Your task to perform on an android device: check data usage Image 0: 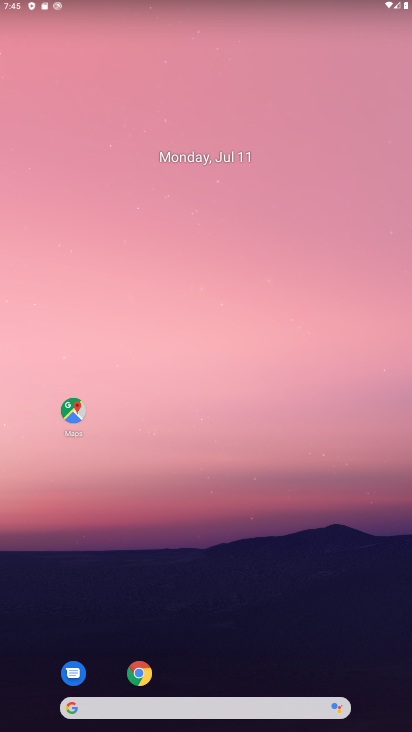
Step 0: drag from (215, 667) to (226, 157)
Your task to perform on an android device: check data usage Image 1: 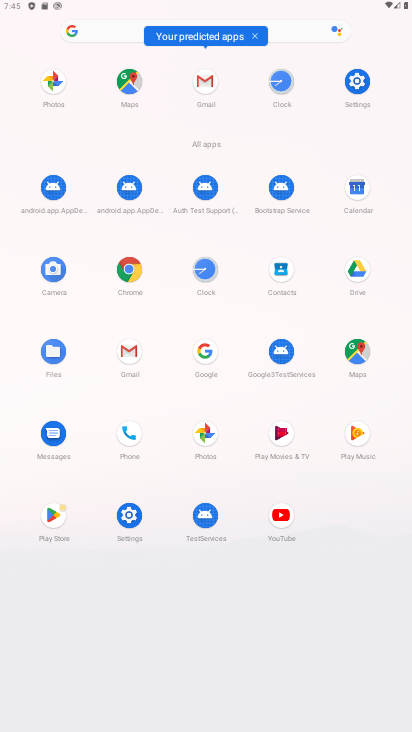
Step 1: click (354, 79)
Your task to perform on an android device: check data usage Image 2: 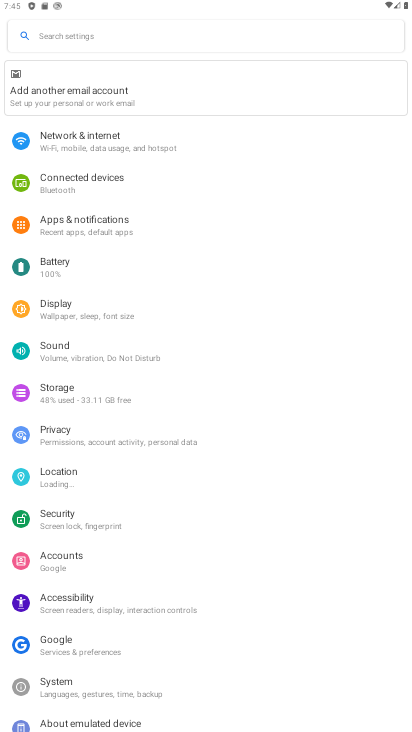
Step 2: click (135, 135)
Your task to perform on an android device: check data usage Image 3: 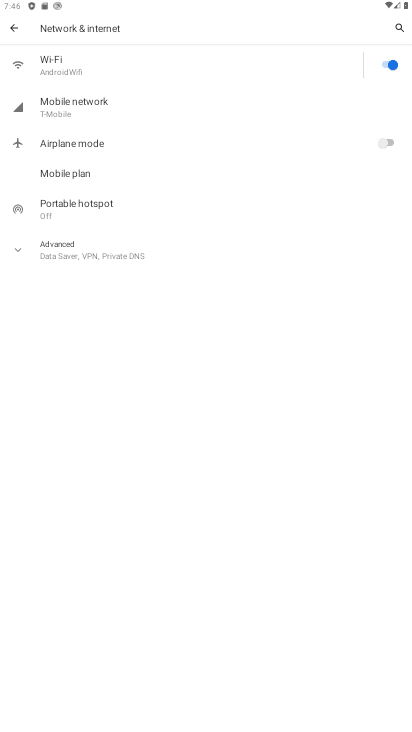
Step 3: click (93, 107)
Your task to perform on an android device: check data usage Image 4: 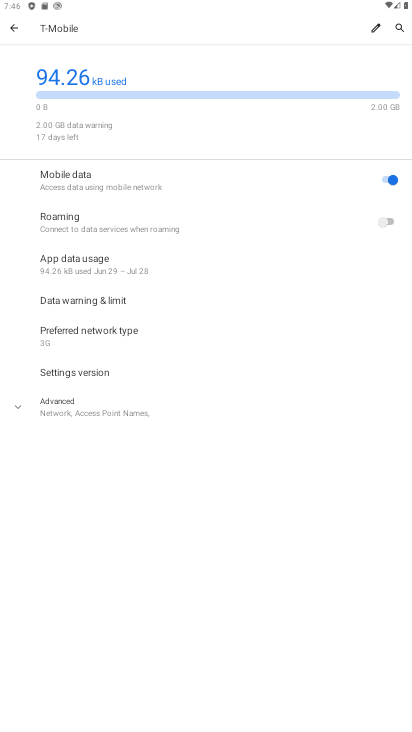
Step 4: click (116, 259)
Your task to perform on an android device: check data usage Image 5: 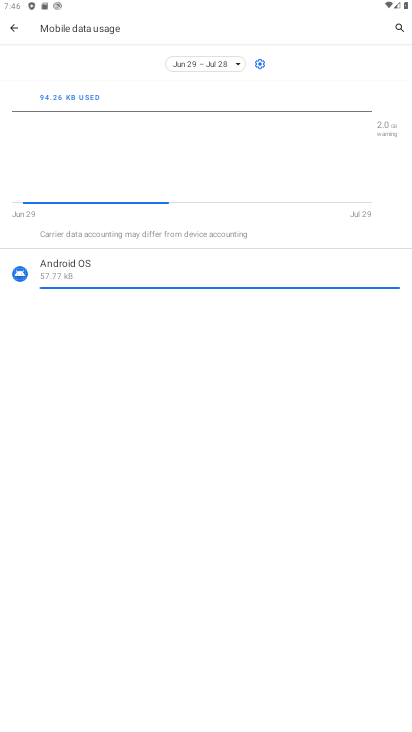
Step 5: task complete